Your task to perform on an android device: delete browsing data in the chrome app Image 0: 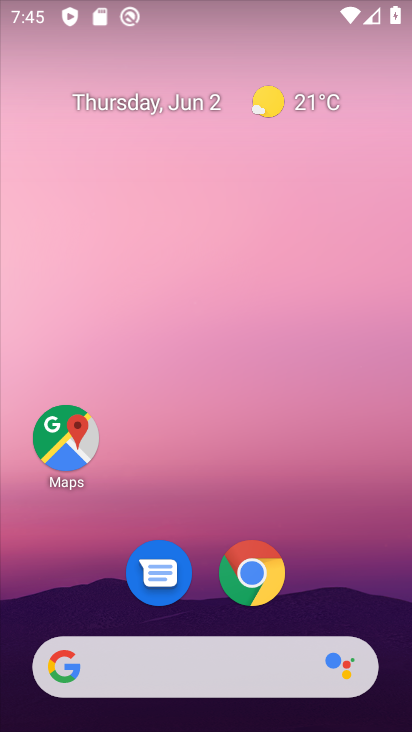
Step 0: click (260, 570)
Your task to perform on an android device: delete browsing data in the chrome app Image 1: 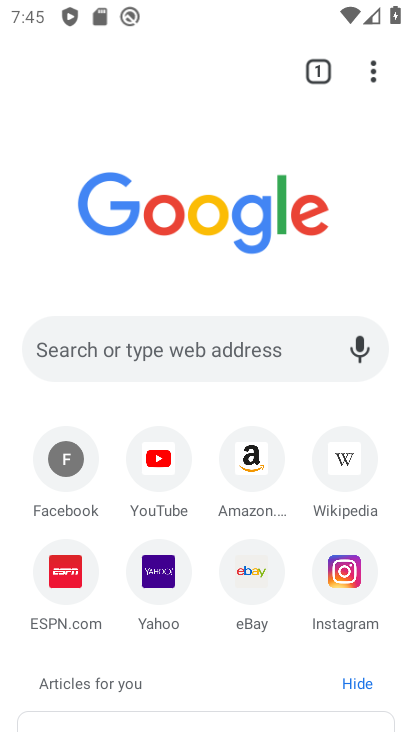
Step 1: click (366, 70)
Your task to perform on an android device: delete browsing data in the chrome app Image 2: 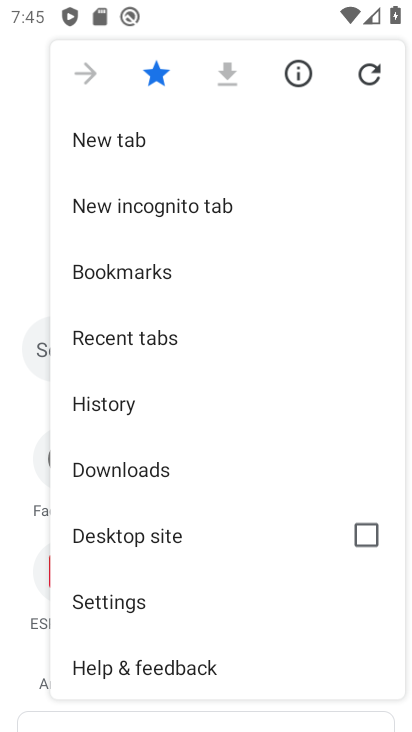
Step 2: click (123, 410)
Your task to perform on an android device: delete browsing data in the chrome app Image 3: 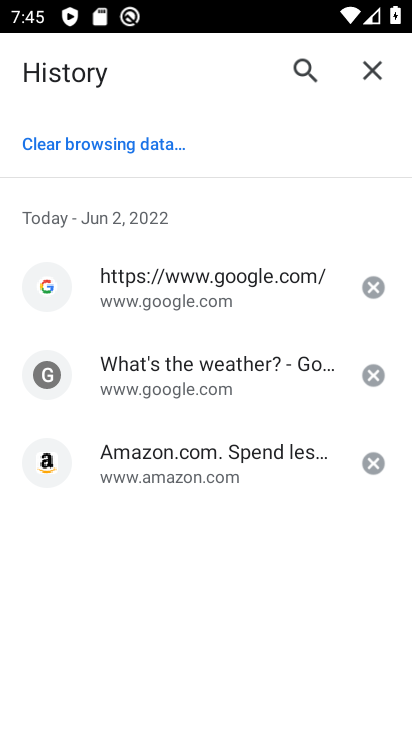
Step 3: click (95, 157)
Your task to perform on an android device: delete browsing data in the chrome app Image 4: 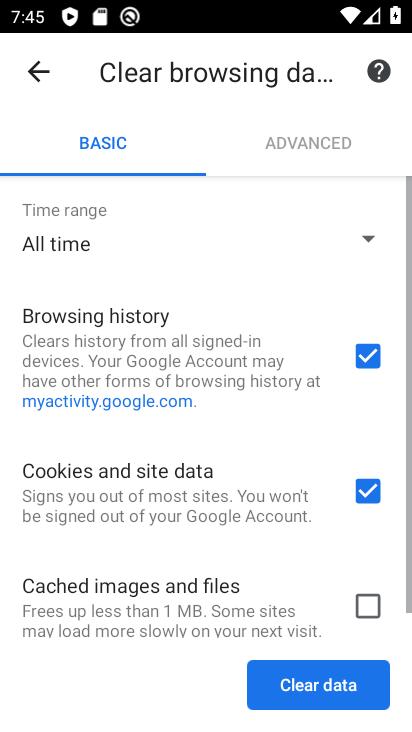
Step 4: click (367, 502)
Your task to perform on an android device: delete browsing data in the chrome app Image 5: 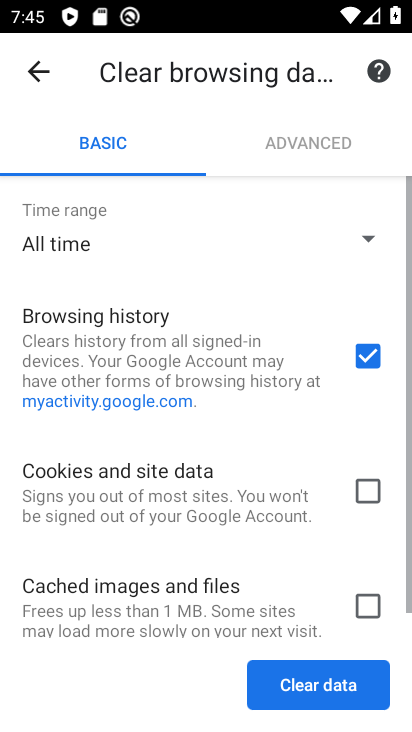
Step 5: click (289, 688)
Your task to perform on an android device: delete browsing data in the chrome app Image 6: 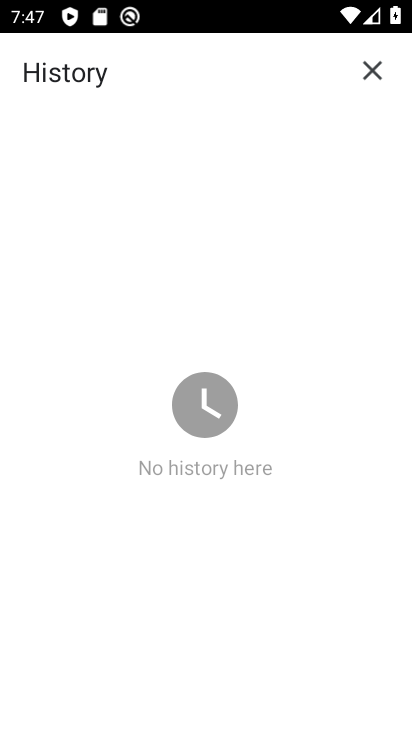
Step 6: task complete